Your task to perform on an android device: see creations saved in the google photos Image 0: 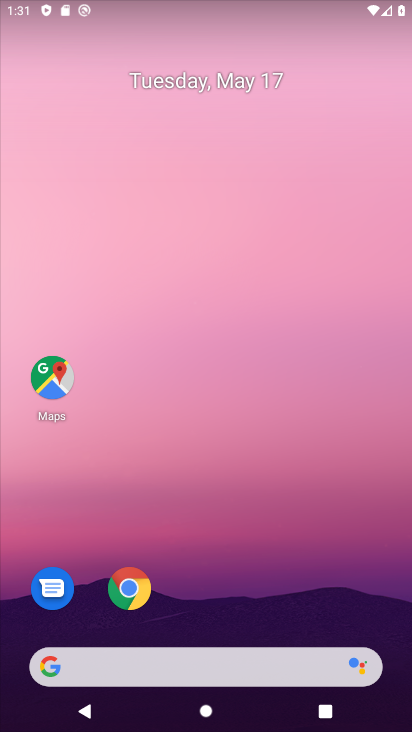
Step 0: drag from (210, 606) to (135, 204)
Your task to perform on an android device: see creations saved in the google photos Image 1: 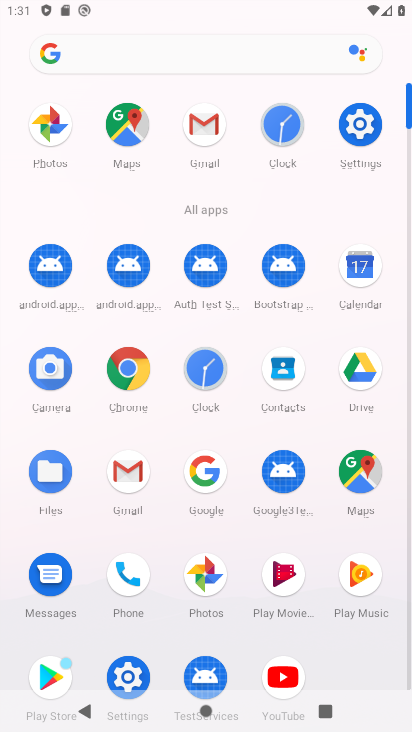
Step 1: click (62, 124)
Your task to perform on an android device: see creations saved in the google photos Image 2: 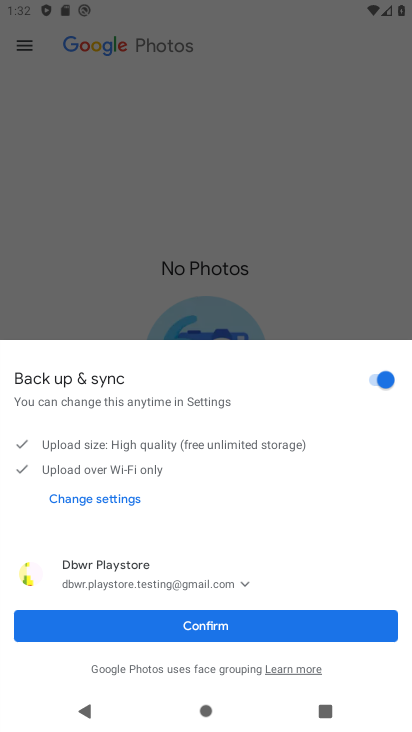
Step 2: click (323, 298)
Your task to perform on an android device: see creations saved in the google photos Image 3: 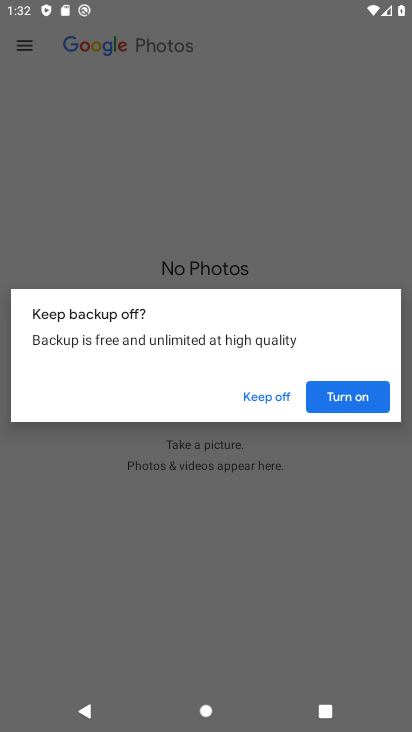
Step 3: click (210, 635)
Your task to perform on an android device: see creations saved in the google photos Image 4: 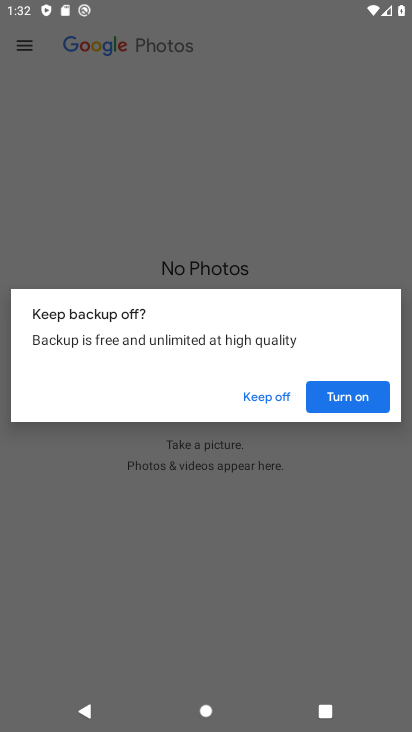
Step 4: click (360, 409)
Your task to perform on an android device: see creations saved in the google photos Image 5: 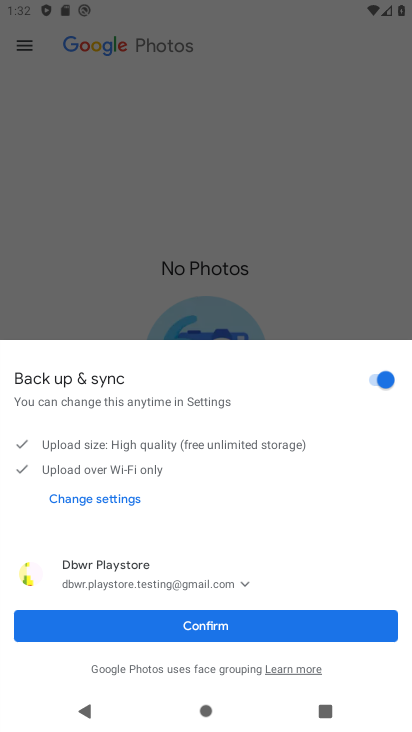
Step 5: click (264, 634)
Your task to perform on an android device: see creations saved in the google photos Image 6: 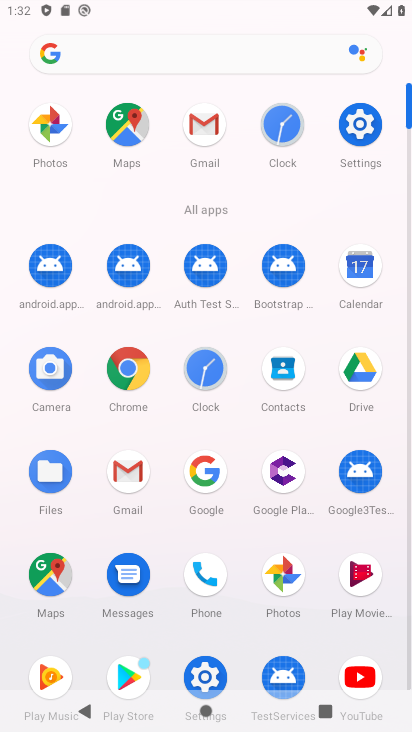
Step 6: click (281, 564)
Your task to perform on an android device: see creations saved in the google photos Image 7: 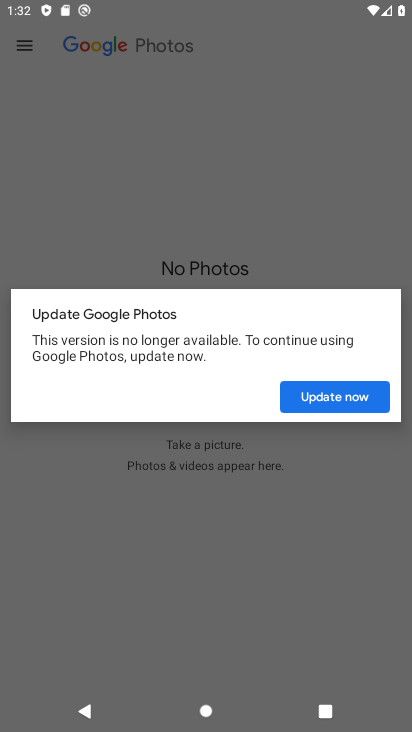
Step 7: click (319, 396)
Your task to perform on an android device: see creations saved in the google photos Image 8: 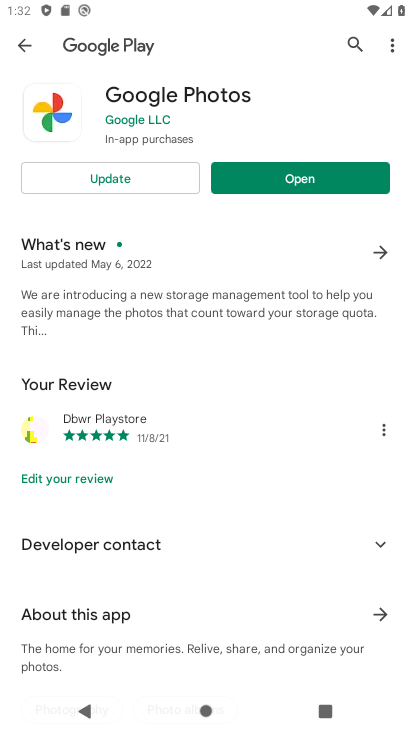
Step 8: click (130, 190)
Your task to perform on an android device: see creations saved in the google photos Image 9: 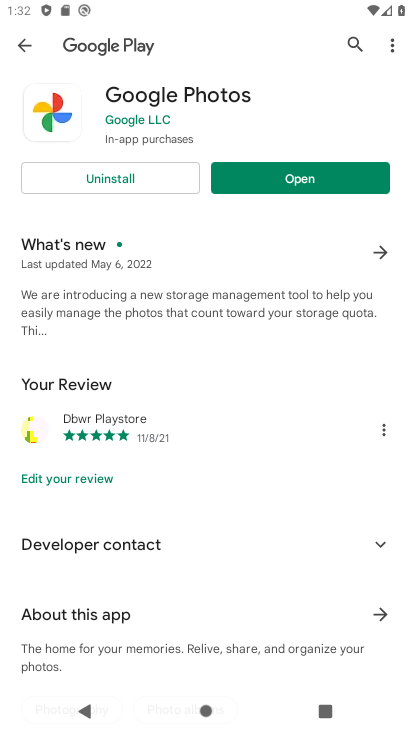
Step 9: click (251, 189)
Your task to perform on an android device: see creations saved in the google photos Image 10: 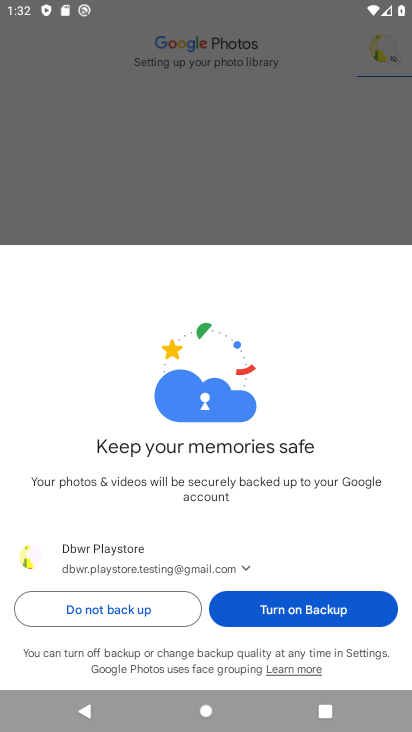
Step 10: click (274, 608)
Your task to perform on an android device: see creations saved in the google photos Image 11: 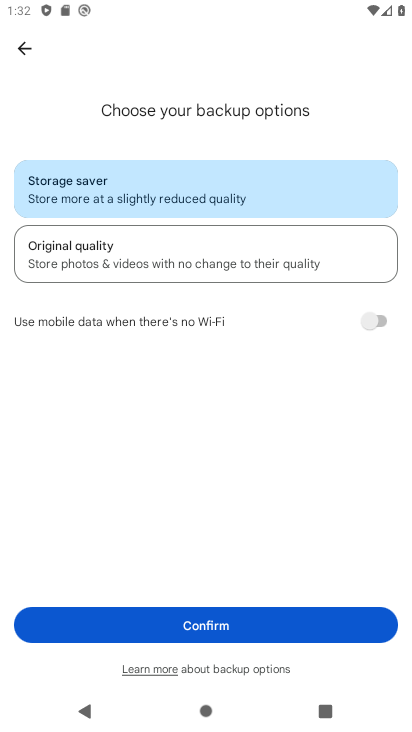
Step 11: press back button
Your task to perform on an android device: see creations saved in the google photos Image 12: 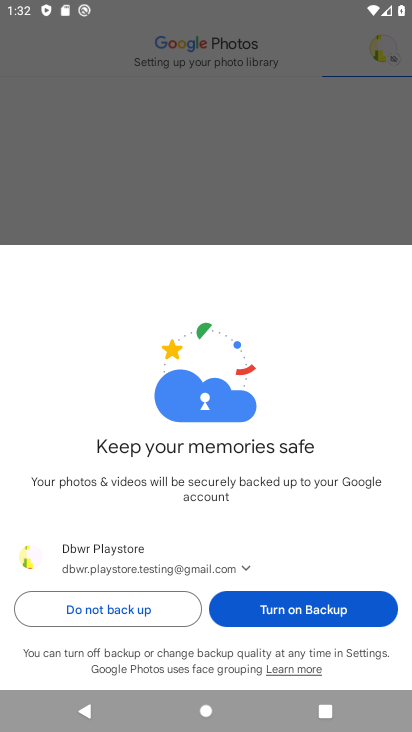
Step 12: press back button
Your task to perform on an android device: see creations saved in the google photos Image 13: 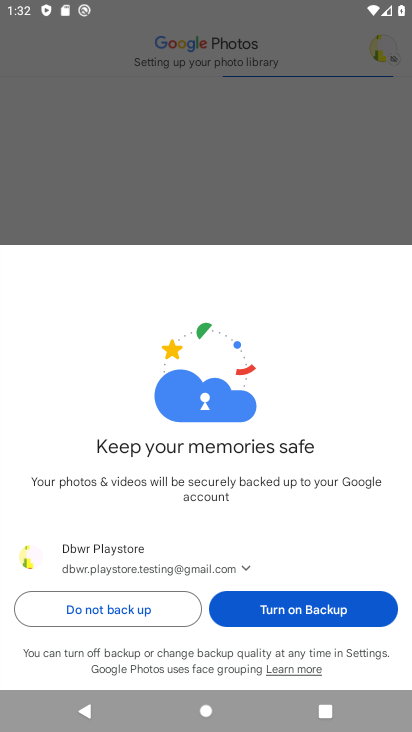
Step 13: click (150, 615)
Your task to perform on an android device: see creations saved in the google photos Image 14: 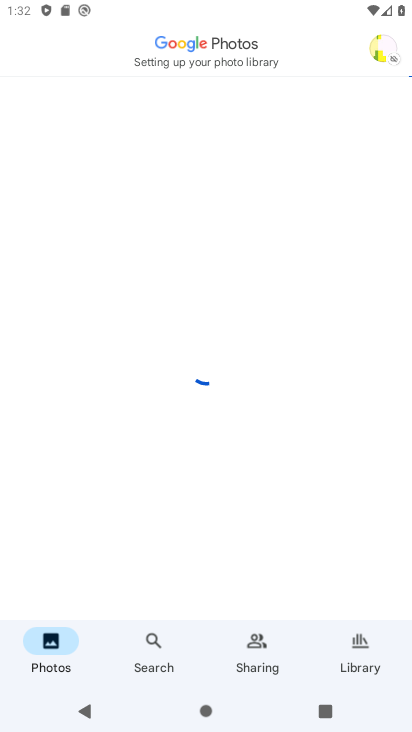
Step 14: click (154, 645)
Your task to perform on an android device: see creations saved in the google photos Image 15: 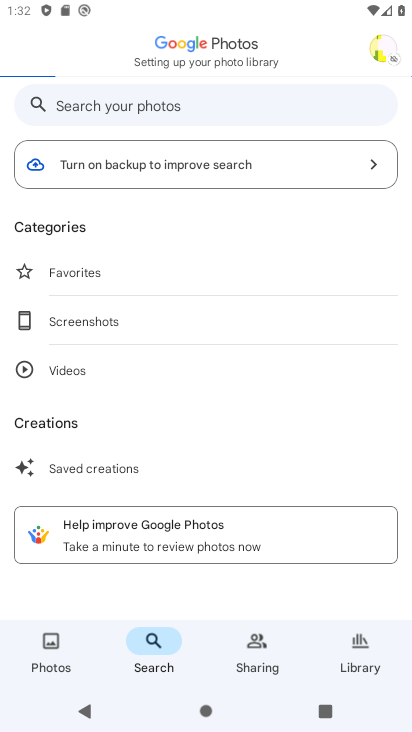
Step 15: click (77, 469)
Your task to perform on an android device: see creations saved in the google photos Image 16: 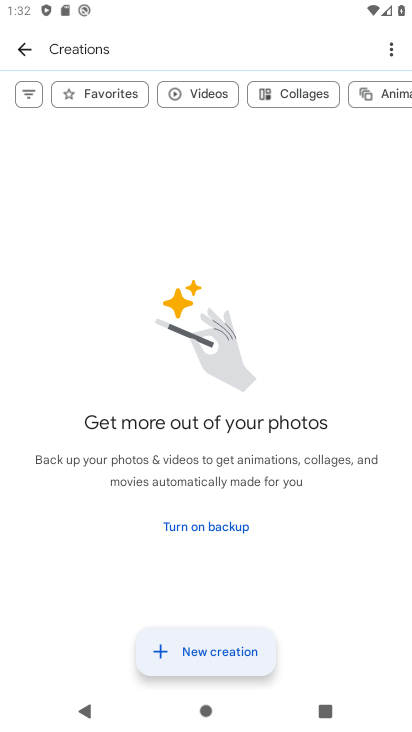
Step 16: task complete